Your task to perform on an android device: Open the stopwatch Image 0: 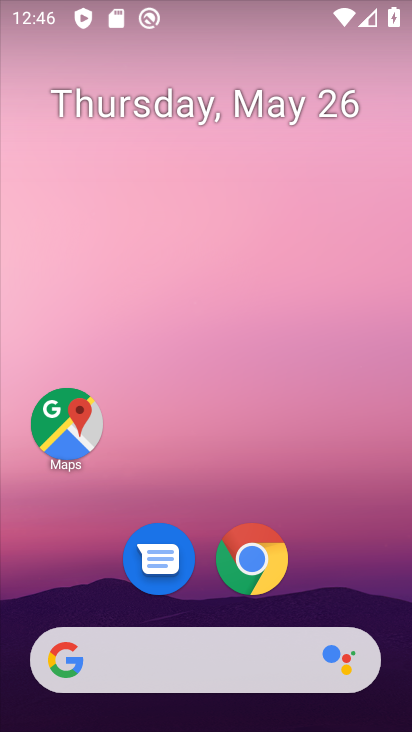
Step 0: press home button
Your task to perform on an android device: Open the stopwatch Image 1: 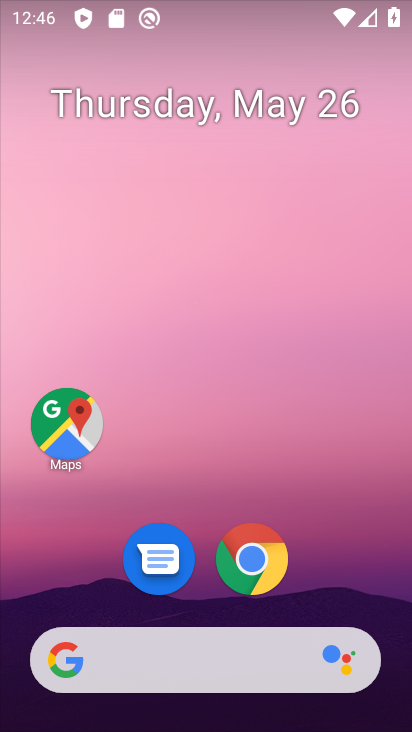
Step 1: drag from (208, 645) to (331, 181)
Your task to perform on an android device: Open the stopwatch Image 2: 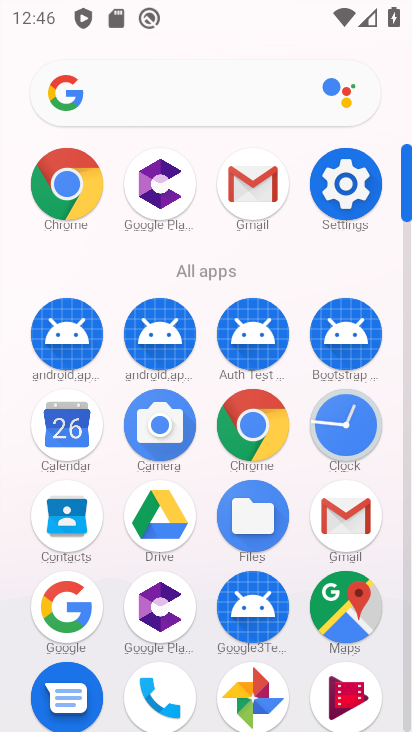
Step 2: click (352, 438)
Your task to perform on an android device: Open the stopwatch Image 3: 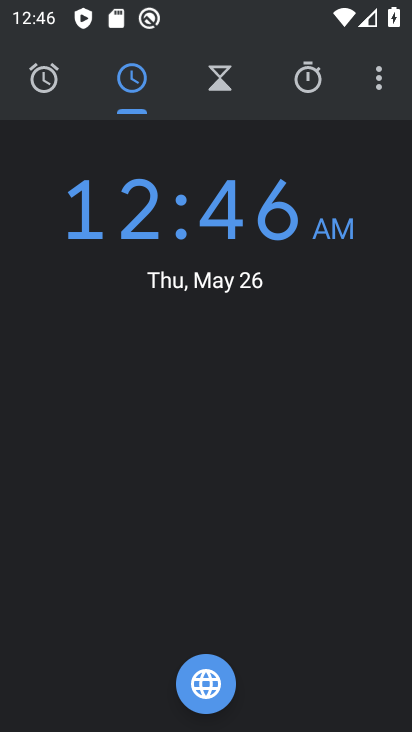
Step 3: click (315, 82)
Your task to perform on an android device: Open the stopwatch Image 4: 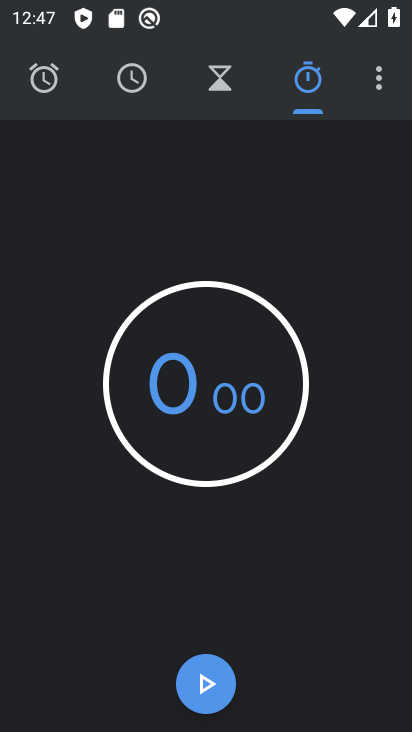
Step 4: task complete